Your task to perform on an android device: Search for acer nitro on walmart, select the first entry, and add it to the cart. Image 0: 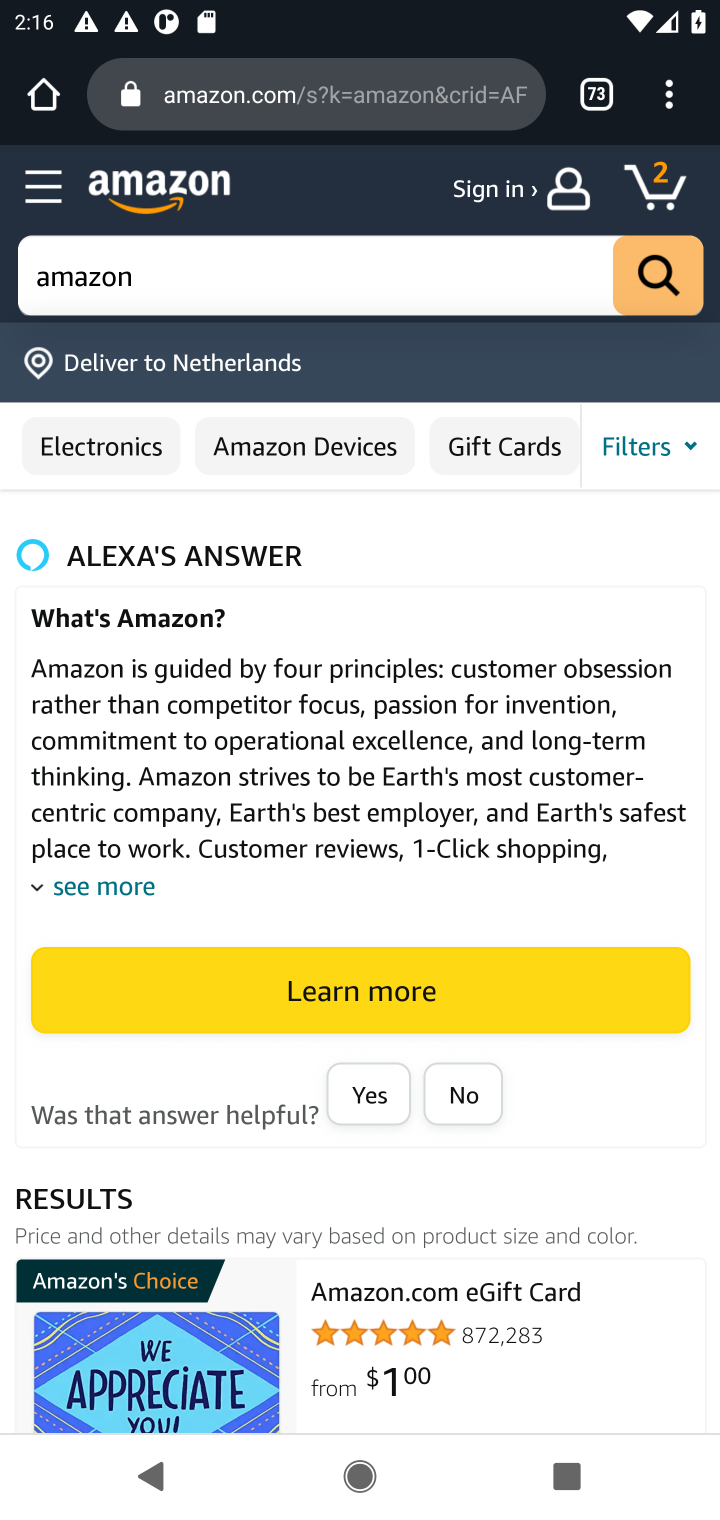
Step 0: press home button
Your task to perform on an android device: Search for acer nitro on walmart, select the first entry, and add it to the cart. Image 1: 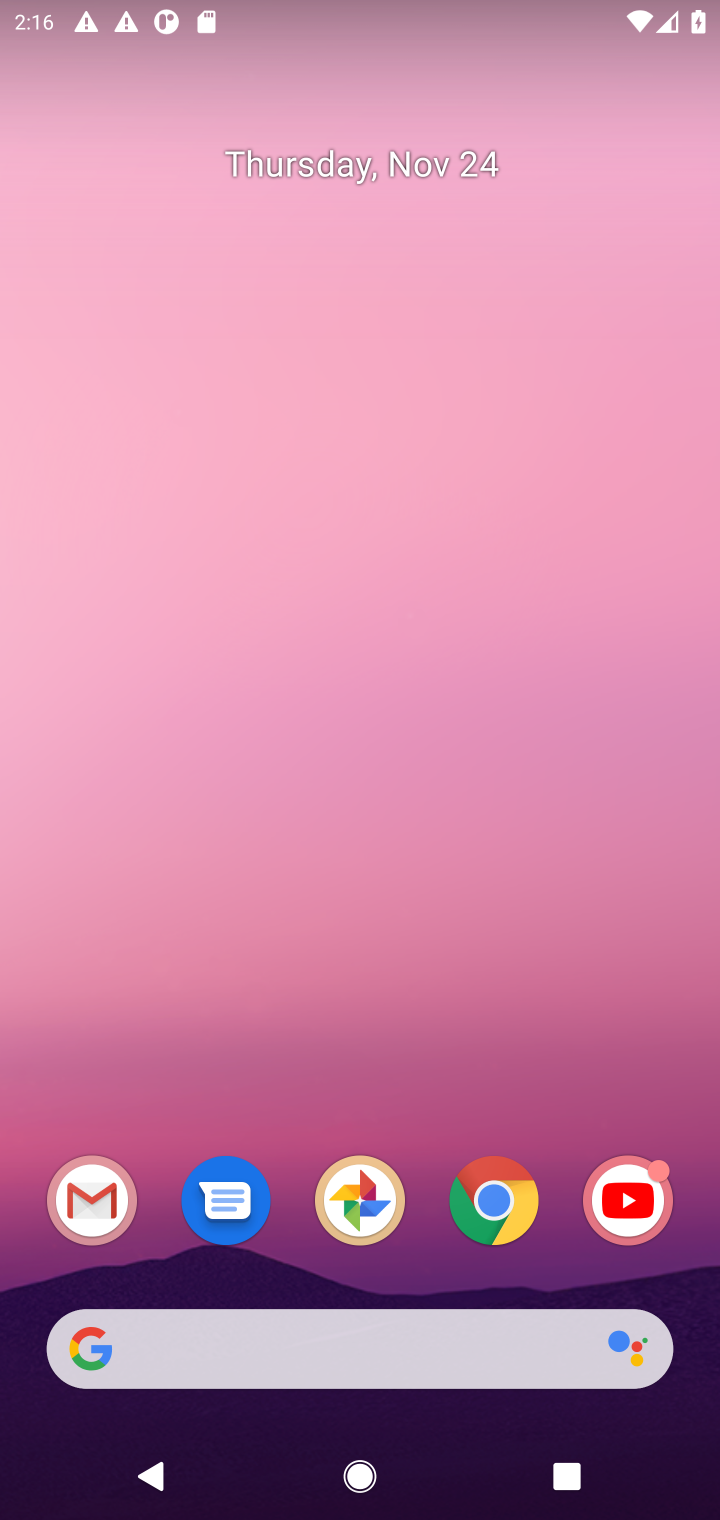
Step 1: click (263, 1363)
Your task to perform on an android device: Search for acer nitro on walmart, select the first entry, and add it to the cart. Image 2: 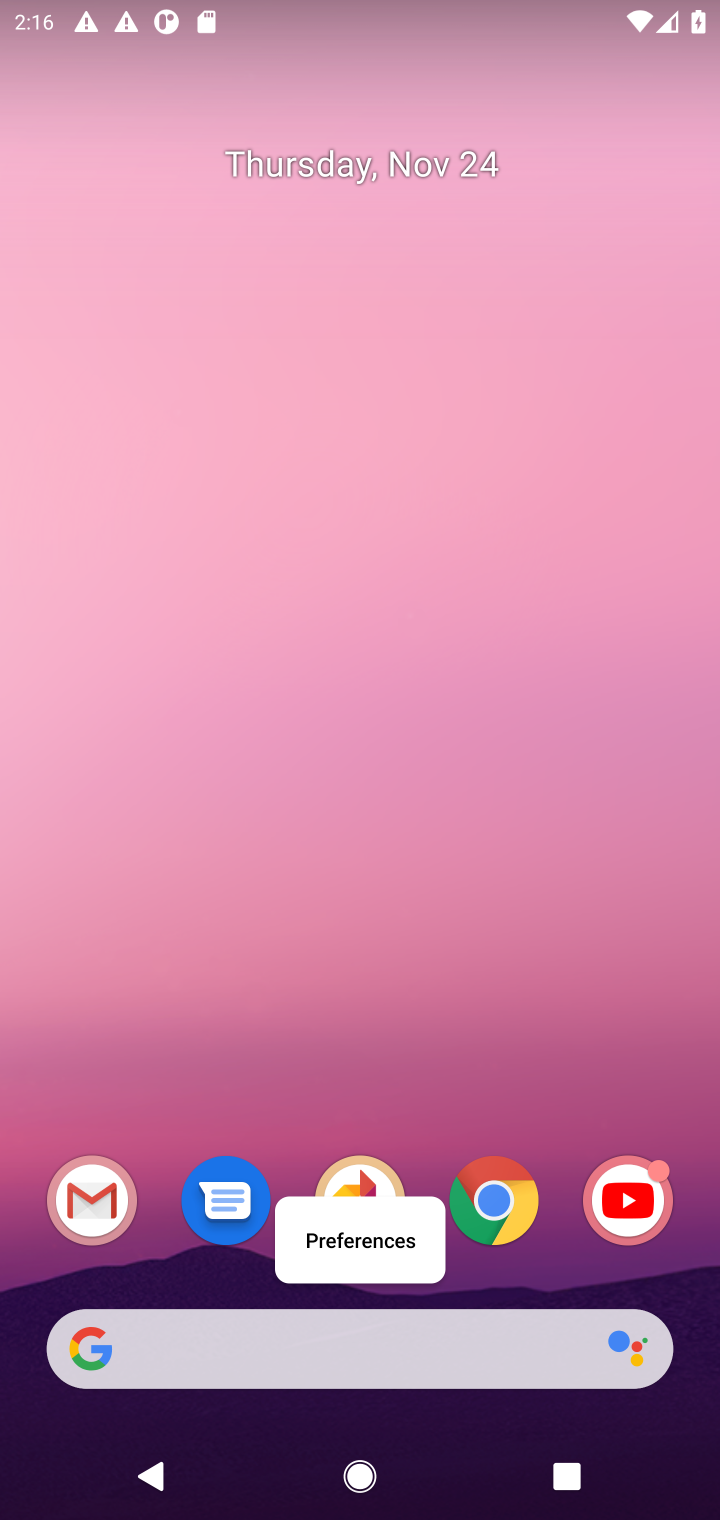
Step 2: type "walmart"
Your task to perform on an android device: Search for acer nitro on walmart, select the first entry, and add it to the cart. Image 3: 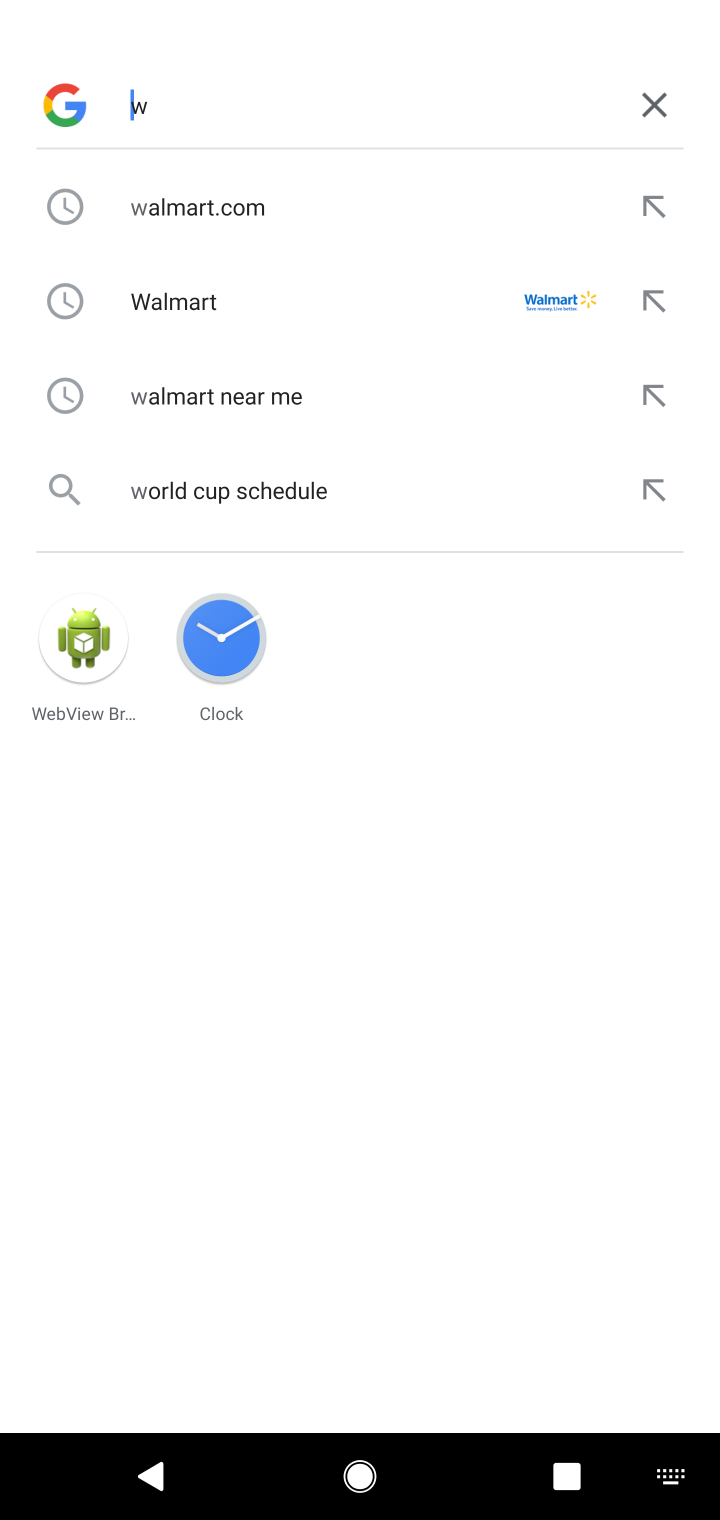
Step 3: click (217, 225)
Your task to perform on an android device: Search for acer nitro on walmart, select the first entry, and add it to the cart. Image 4: 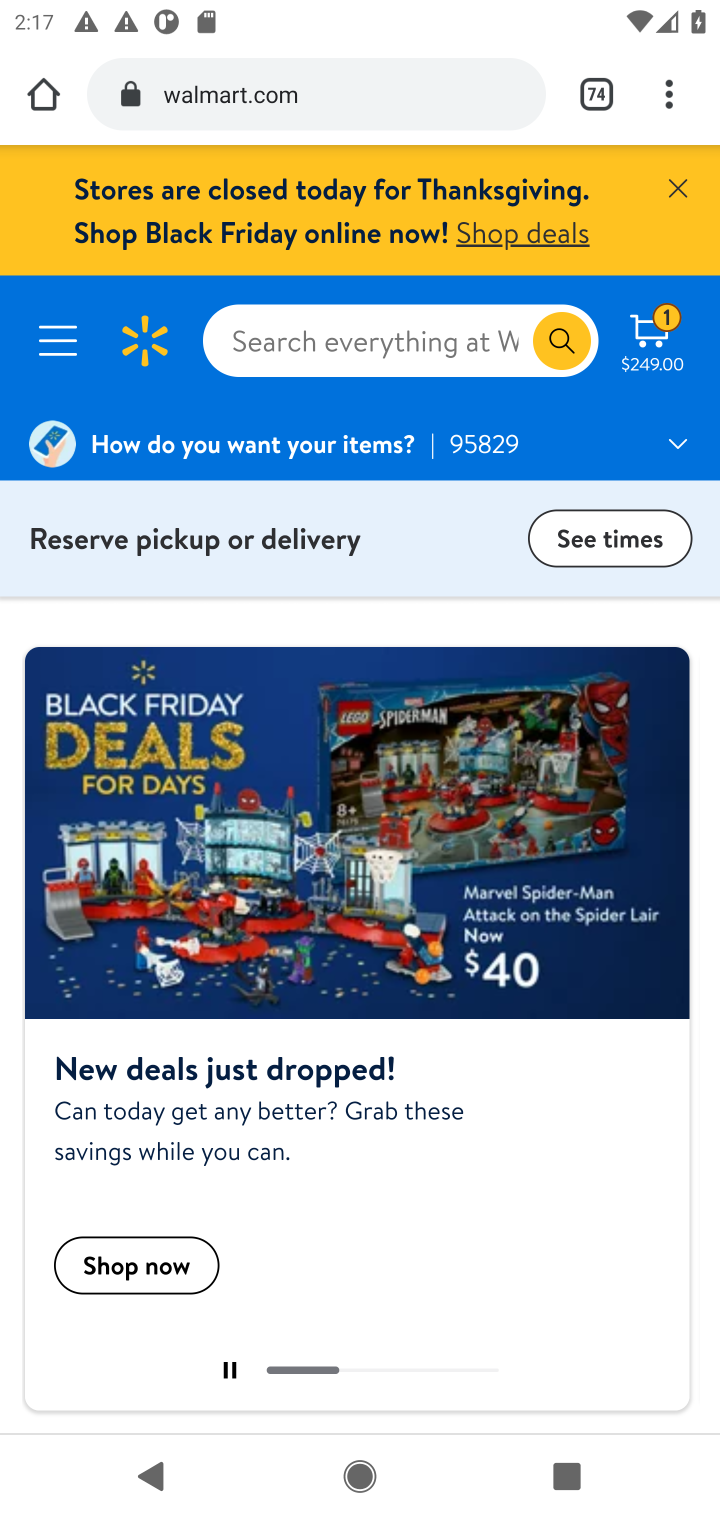
Step 4: click (682, 203)
Your task to perform on an android device: Search for acer nitro on walmart, select the first entry, and add it to the cart. Image 5: 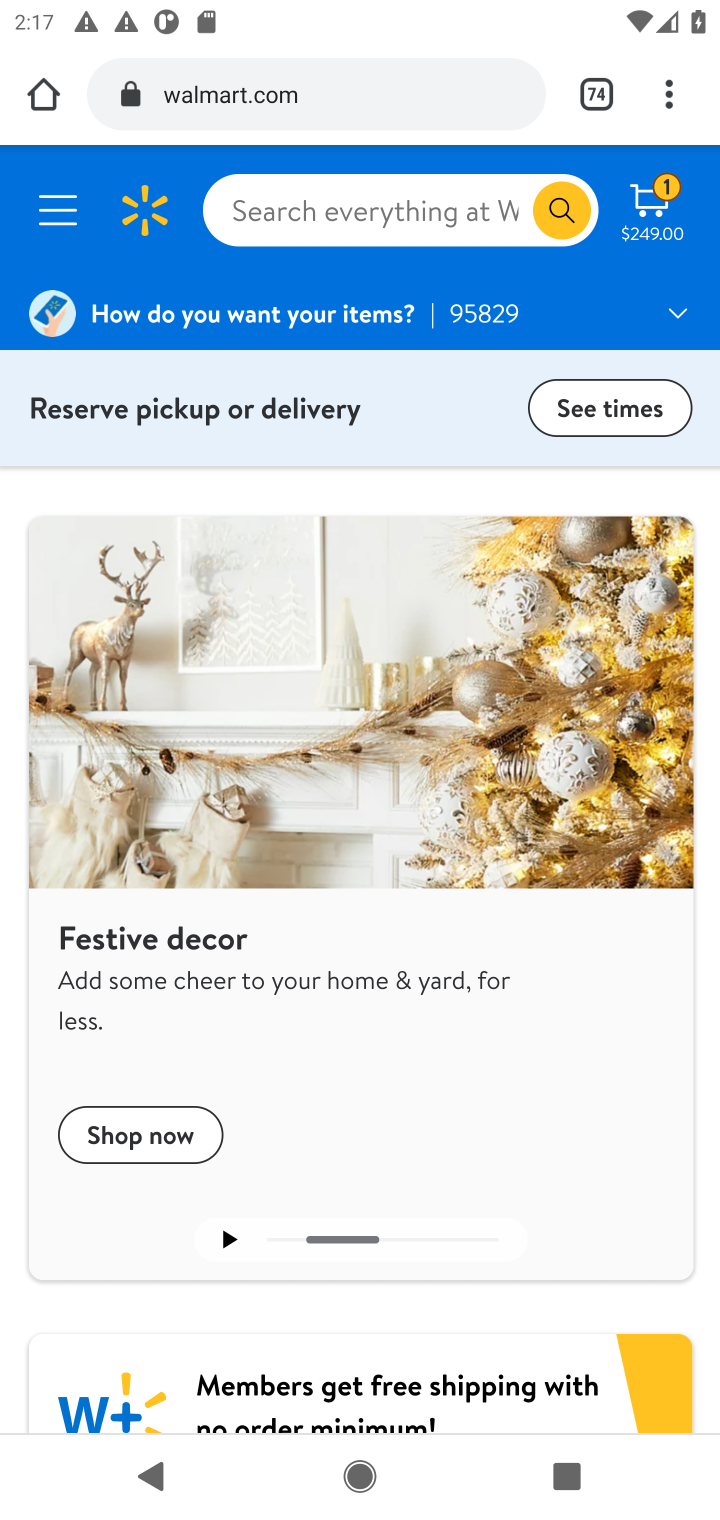
Step 5: click (334, 354)
Your task to perform on an android device: Search for acer nitro on walmart, select the first entry, and add it to the cart. Image 6: 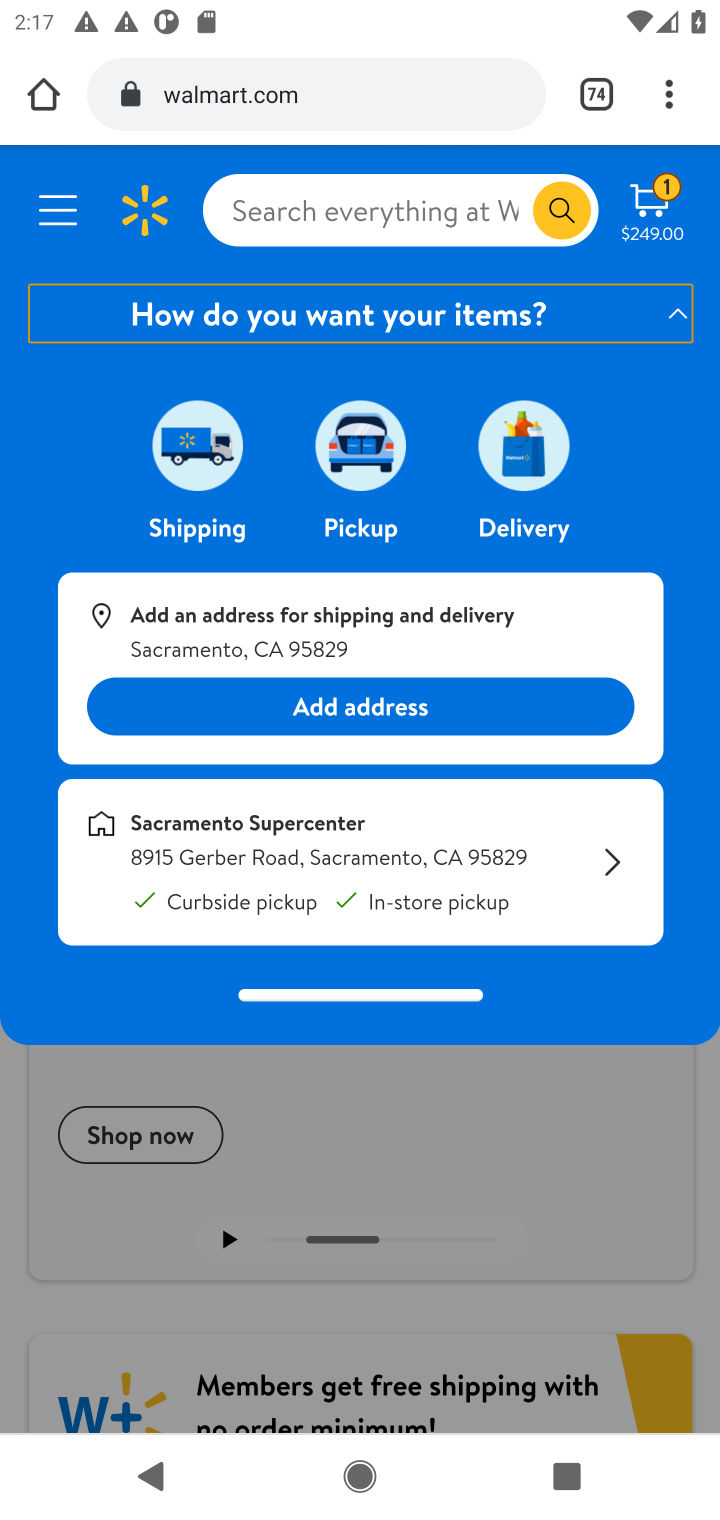
Step 6: click (392, 188)
Your task to perform on an android device: Search for acer nitro on walmart, select the first entry, and add it to the cart. Image 7: 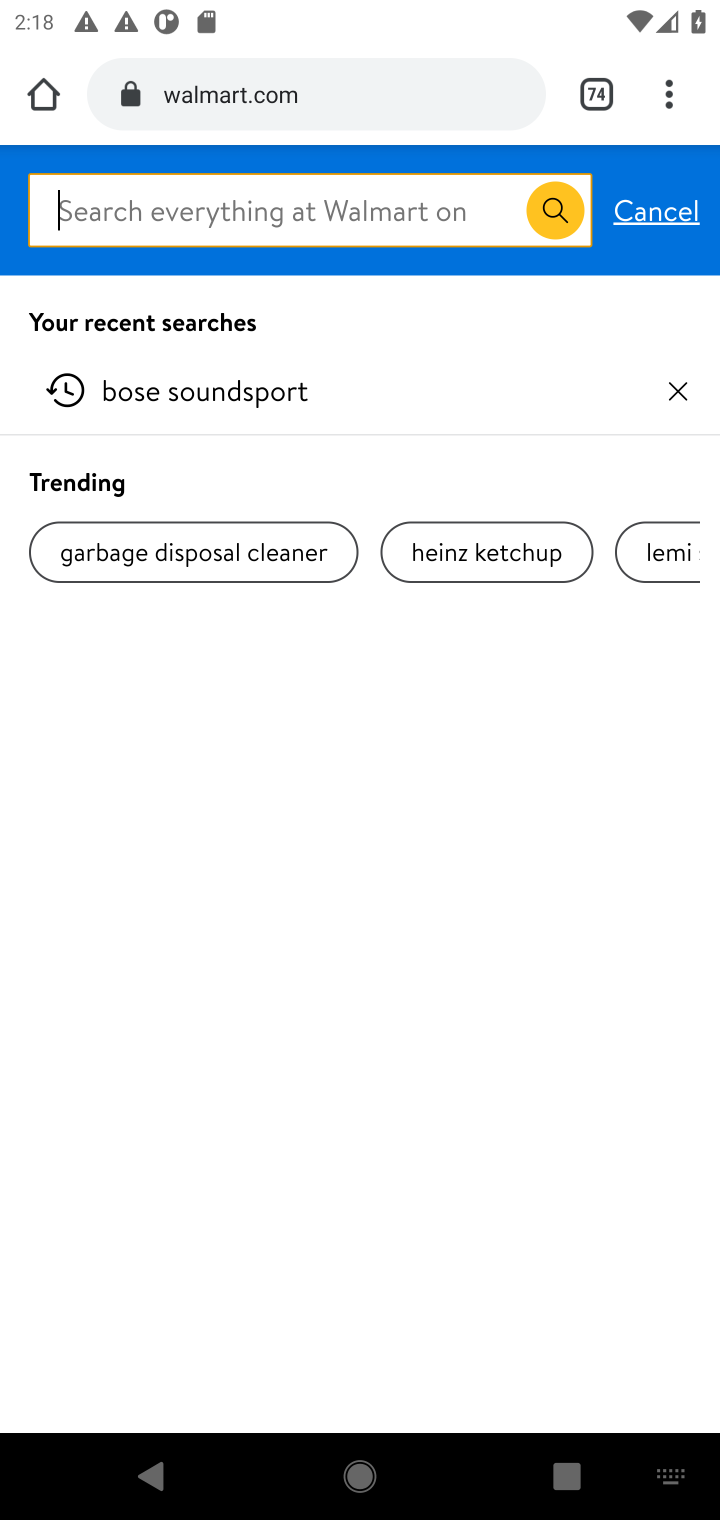
Step 7: task complete